Your task to perform on an android device: See recent photos Image 0: 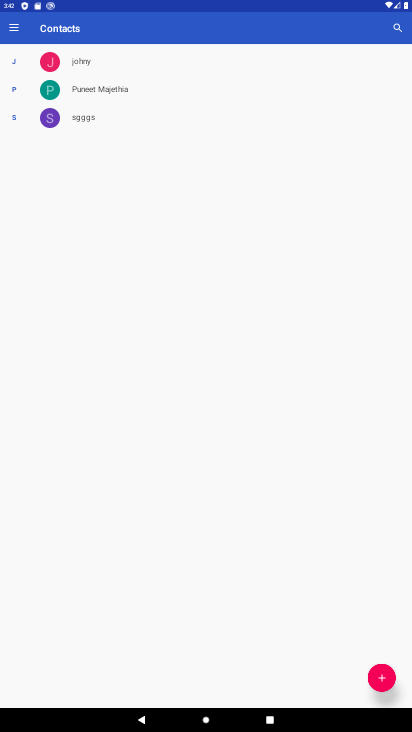
Step 0: press home button
Your task to perform on an android device: See recent photos Image 1: 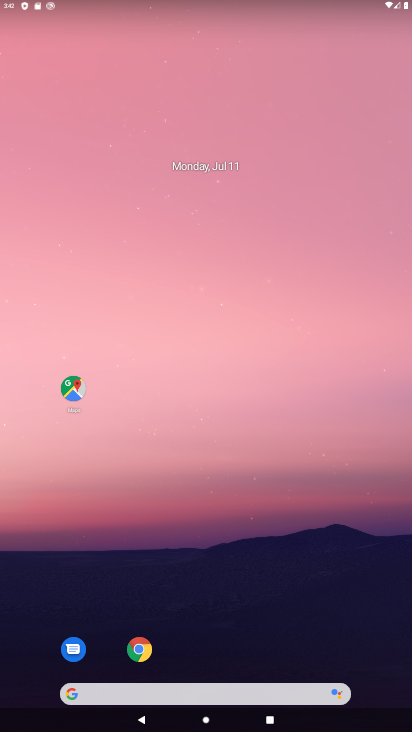
Step 1: drag from (29, 696) to (302, 35)
Your task to perform on an android device: See recent photos Image 2: 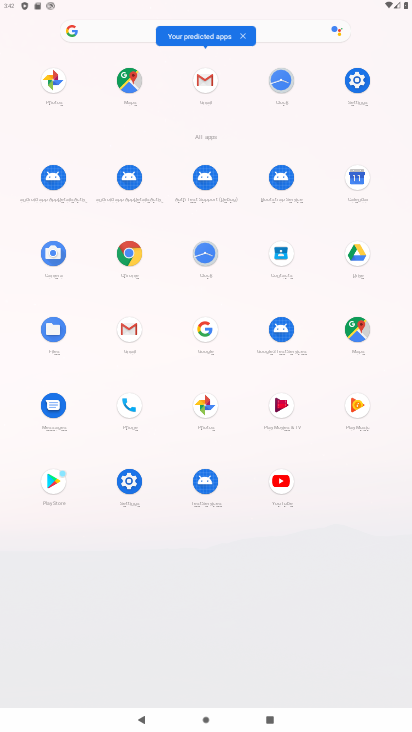
Step 2: click (208, 407)
Your task to perform on an android device: See recent photos Image 3: 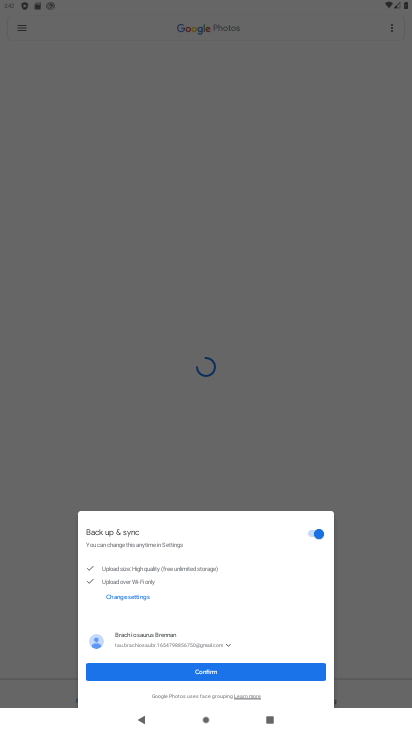
Step 3: click (197, 670)
Your task to perform on an android device: See recent photos Image 4: 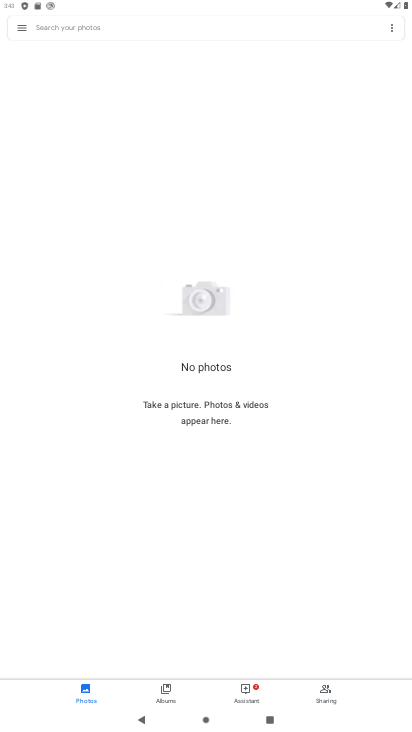
Step 4: task complete